Your task to perform on an android device: set the timer Image 0: 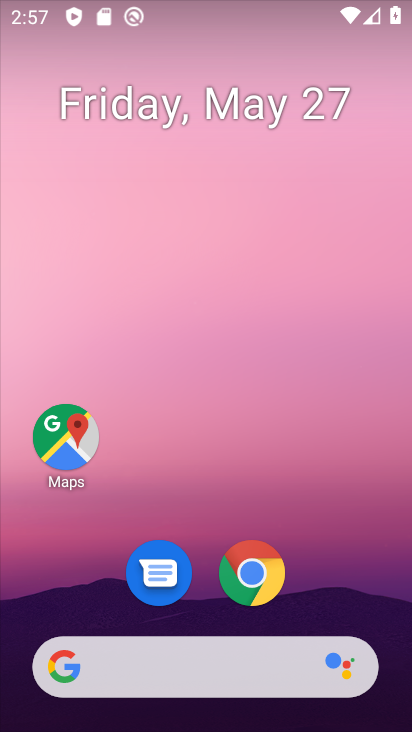
Step 0: drag from (213, 589) to (220, 157)
Your task to perform on an android device: set the timer Image 1: 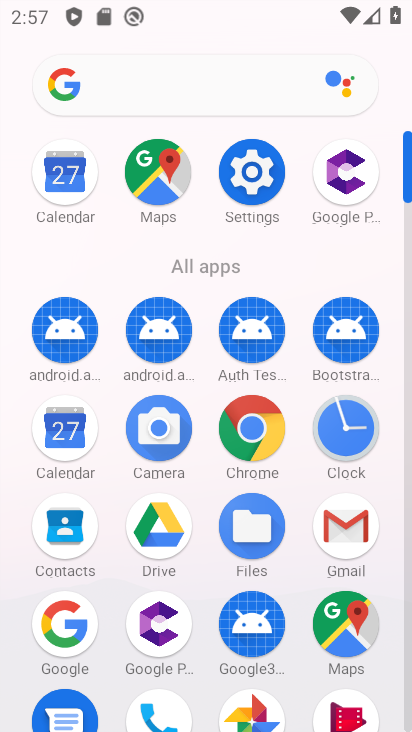
Step 1: click (340, 429)
Your task to perform on an android device: set the timer Image 2: 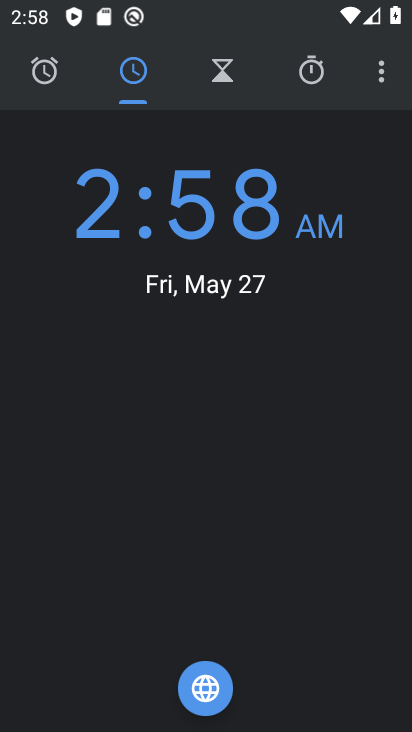
Step 2: click (226, 79)
Your task to perform on an android device: set the timer Image 3: 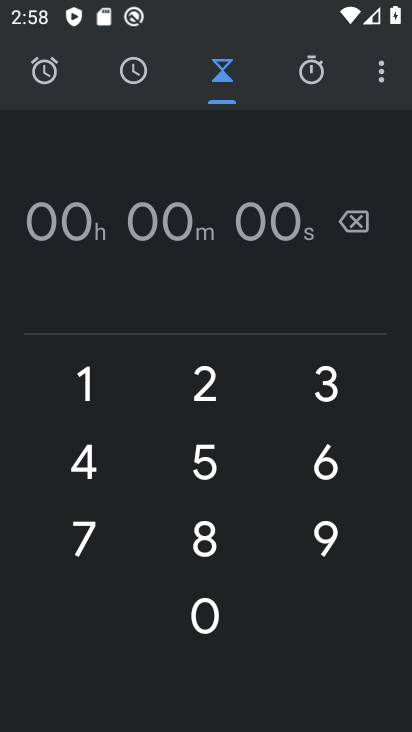
Step 3: click (198, 563)
Your task to perform on an android device: set the timer Image 4: 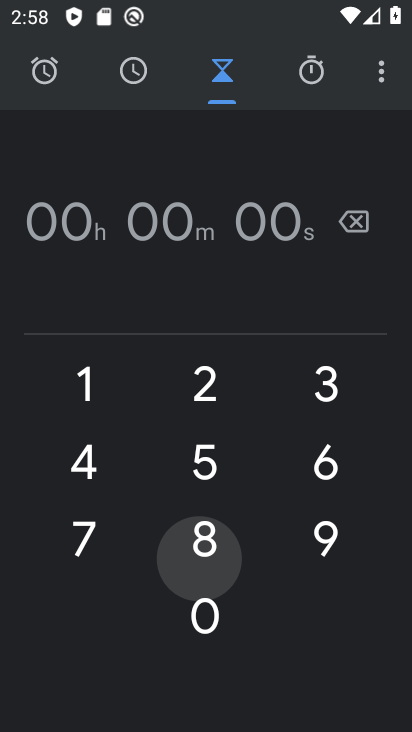
Step 4: click (198, 563)
Your task to perform on an android device: set the timer Image 5: 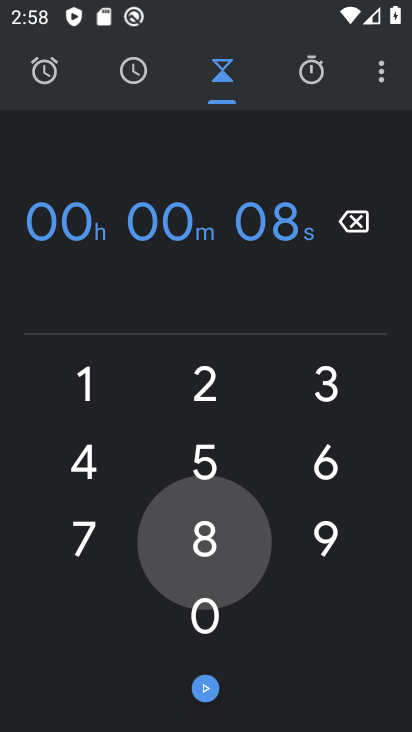
Step 5: click (199, 562)
Your task to perform on an android device: set the timer Image 6: 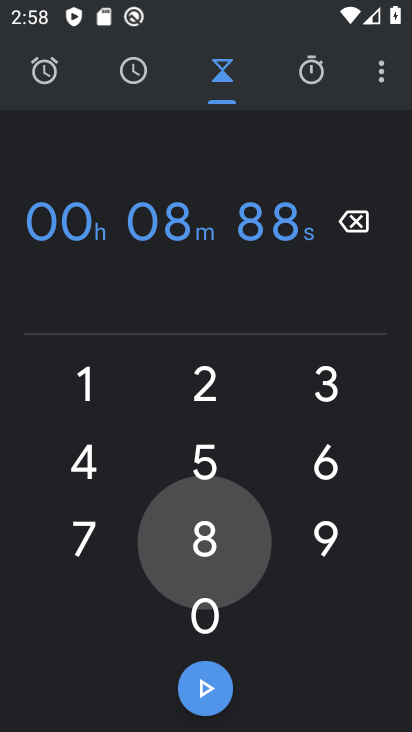
Step 6: click (199, 562)
Your task to perform on an android device: set the timer Image 7: 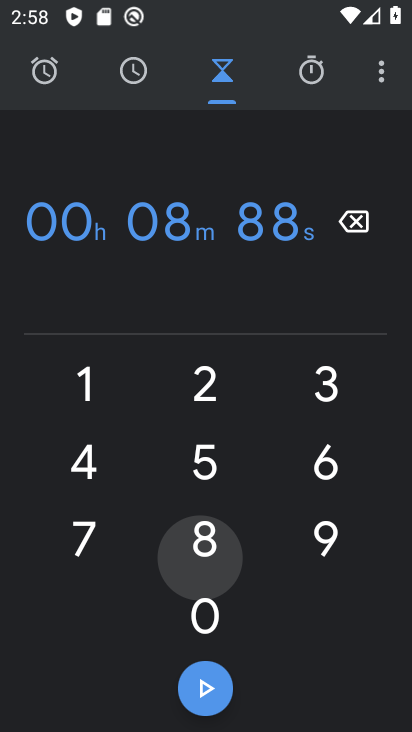
Step 7: click (199, 562)
Your task to perform on an android device: set the timer Image 8: 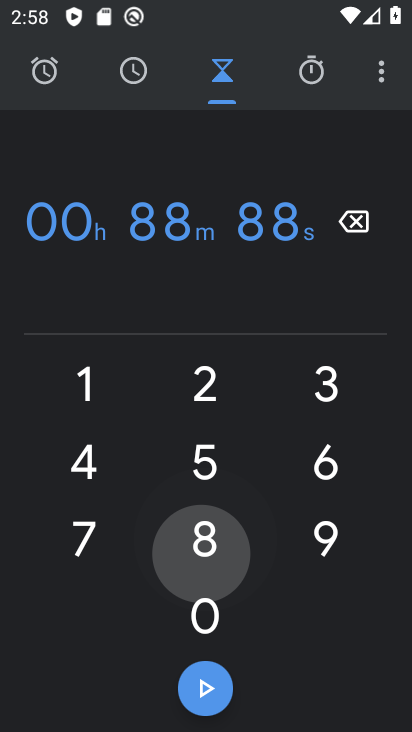
Step 8: click (199, 562)
Your task to perform on an android device: set the timer Image 9: 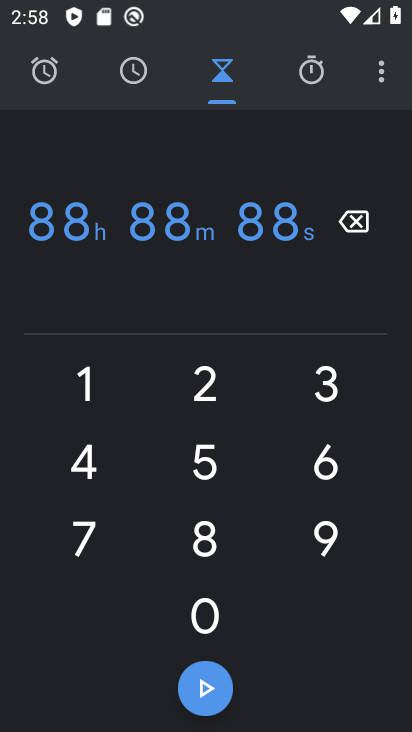
Step 9: click (199, 559)
Your task to perform on an android device: set the timer Image 10: 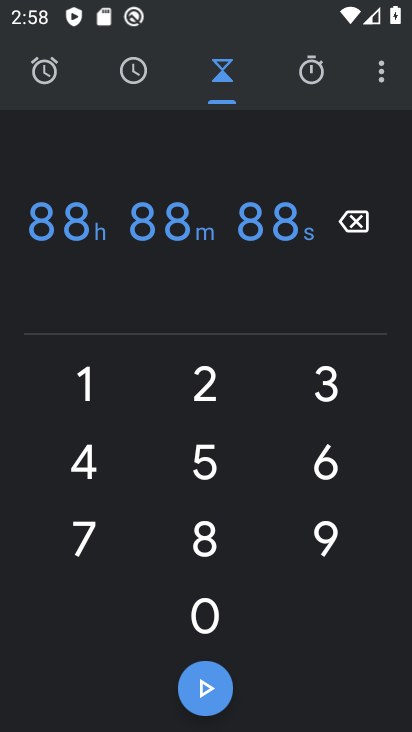
Step 10: click (223, 684)
Your task to perform on an android device: set the timer Image 11: 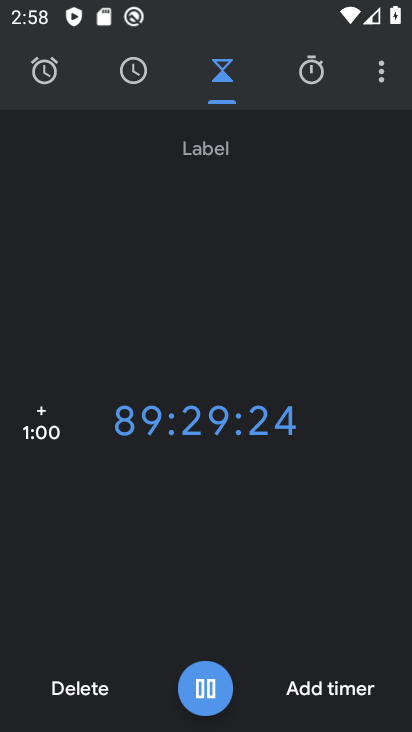
Step 11: task complete